Your task to perform on an android device: Open network settings Image 0: 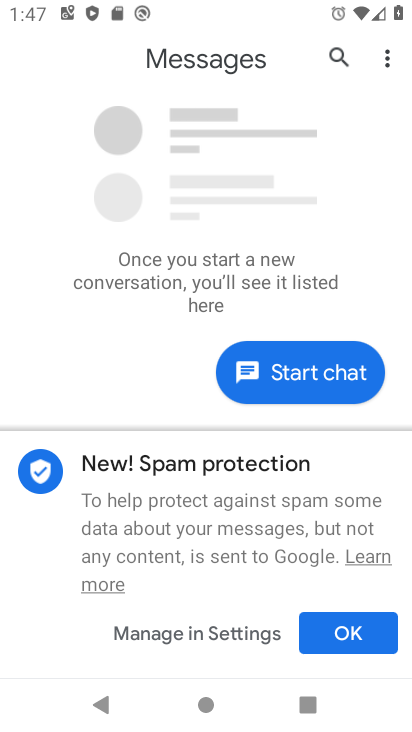
Step 0: press home button
Your task to perform on an android device: Open network settings Image 1: 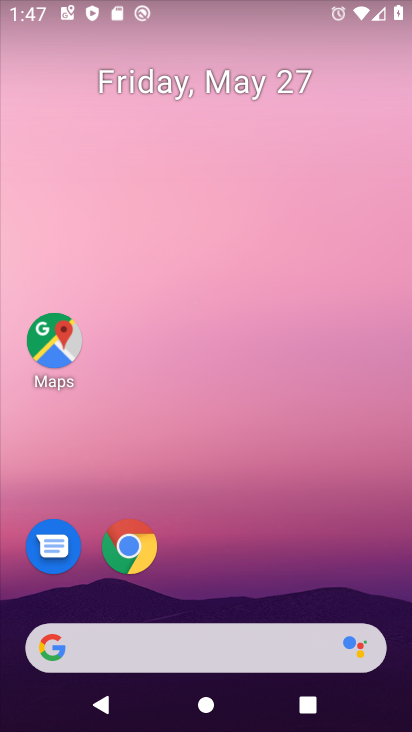
Step 1: drag from (252, 669) to (271, 153)
Your task to perform on an android device: Open network settings Image 2: 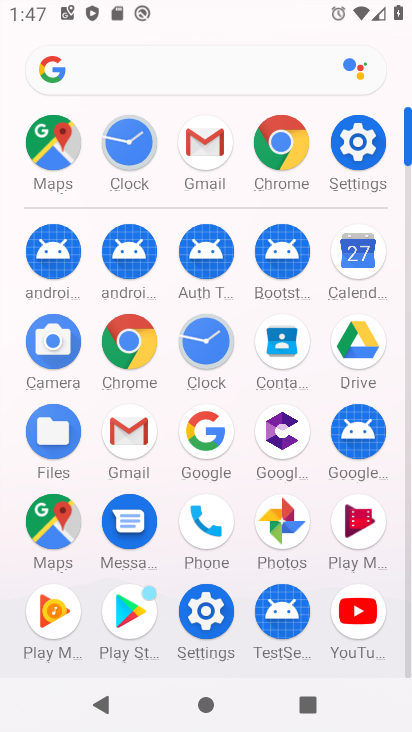
Step 2: click (349, 156)
Your task to perform on an android device: Open network settings Image 3: 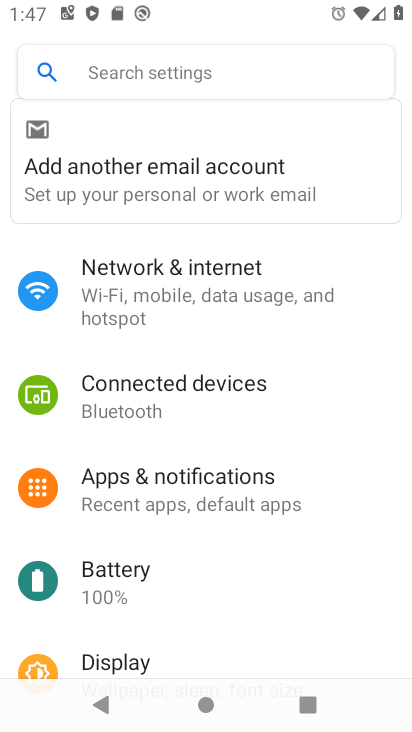
Step 3: click (200, 257)
Your task to perform on an android device: Open network settings Image 4: 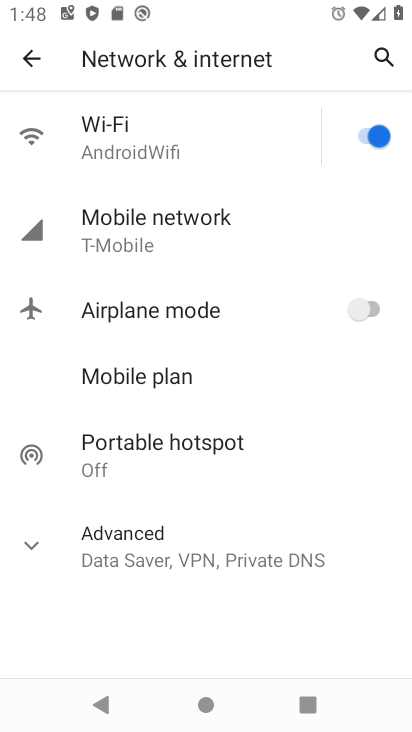
Step 4: task complete